Your task to perform on an android device: Open settings Image 0: 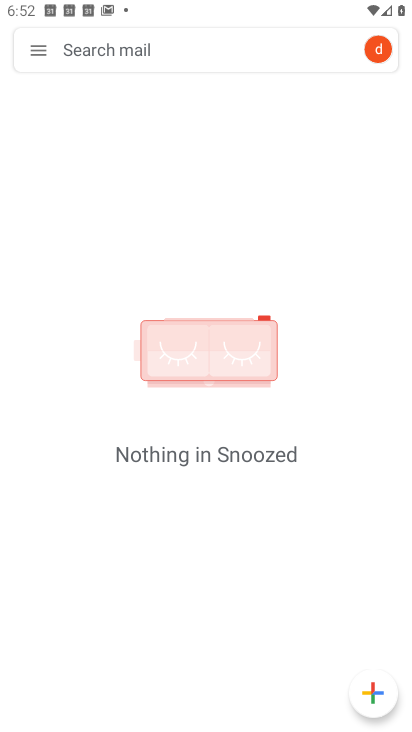
Step 0: press home button
Your task to perform on an android device: Open settings Image 1: 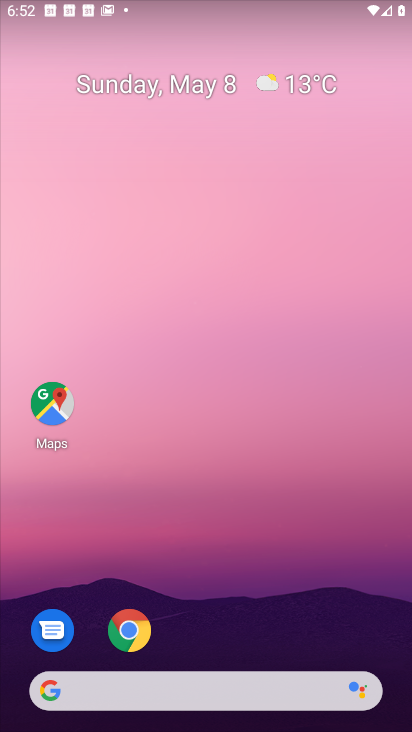
Step 1: drag from (229, 611) to (170, 140)
Your task to perform on an android device: Open settings Image 2: 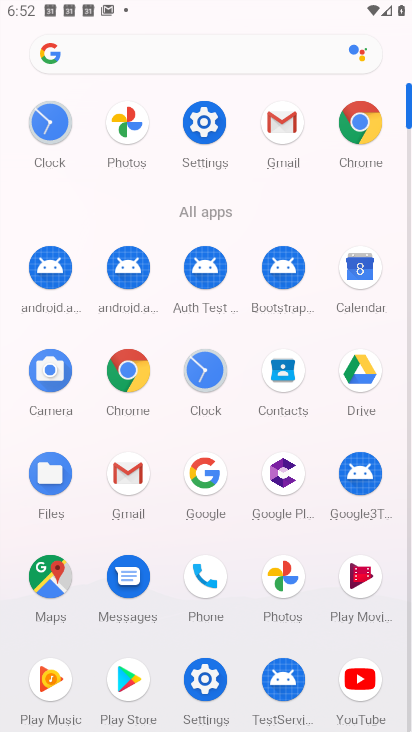
Step 2: click (203, 128)
Your task to perform on an android device: Open settings Image 3: 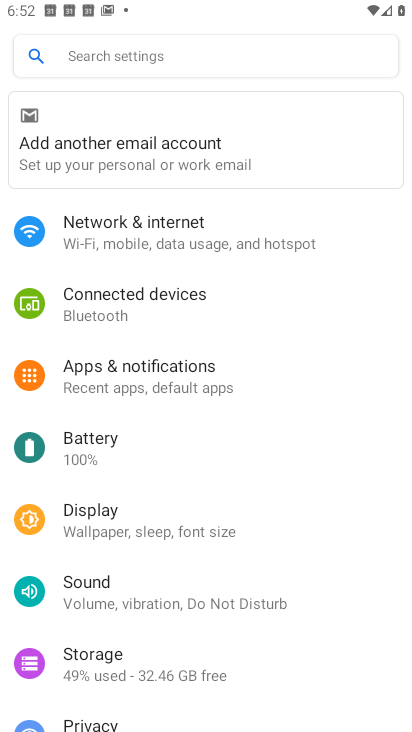
Step 3: task complete